Your task to perform on an android device: find snoozed emails in the gmail app Image 0: 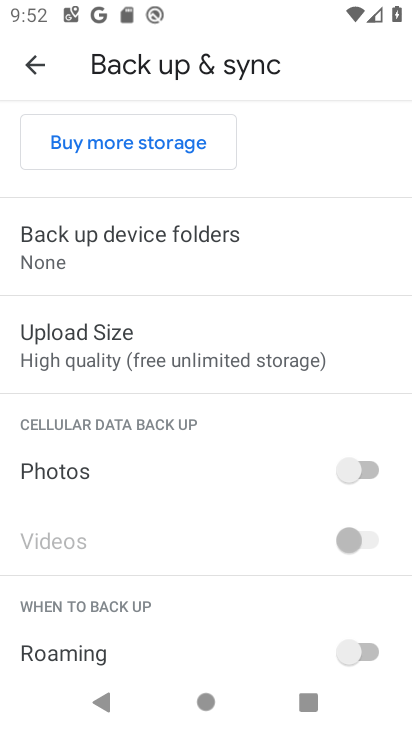
Step 0: press home button
Your task to perform on an android device: find snoozed emails in the gmail app Image 1: 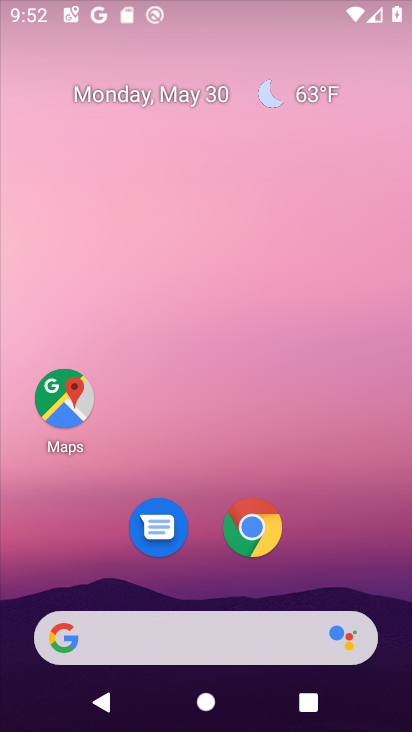
Step 1: drag from (215, 538) to (177, 254)
Your task to perform on an android device: find snoozed emails in the gmail app Image 2: 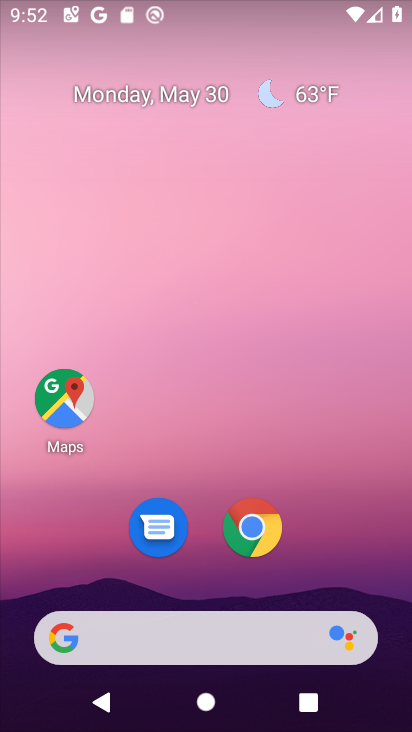
Step 2: drag from (98, 607) to (170, 213)
Your task to perform on an android device: find snoozed emails in the gmail app Image 3: 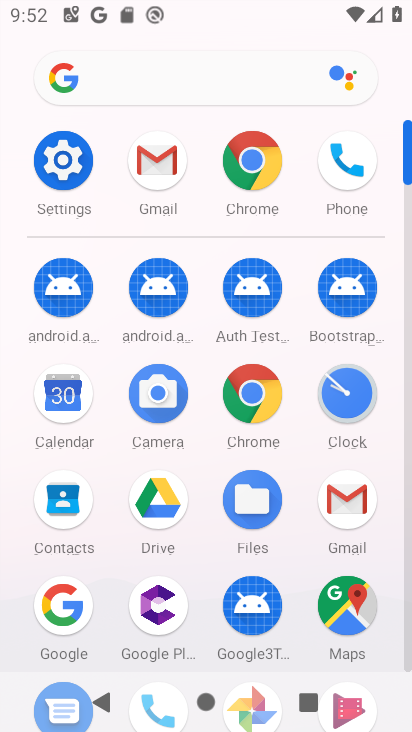
Step 3: click (340, 496)
Your task to perform on an android device: find snoozed emails in the gmail app Image 4: 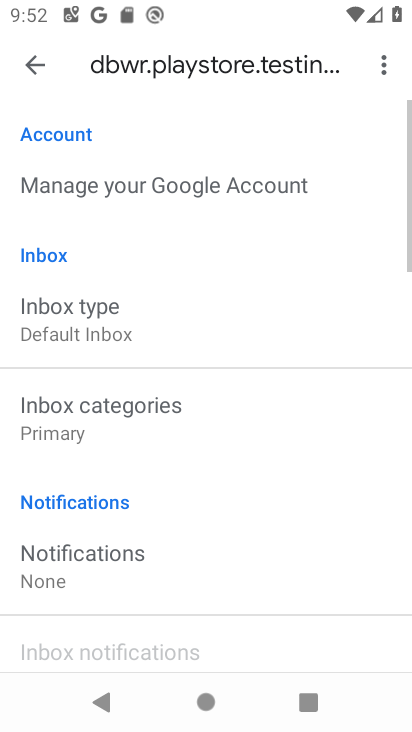
Step 4: click (52, 59)
Your task to perform on an android device: find snoozed emails in the gmail app Image 5: 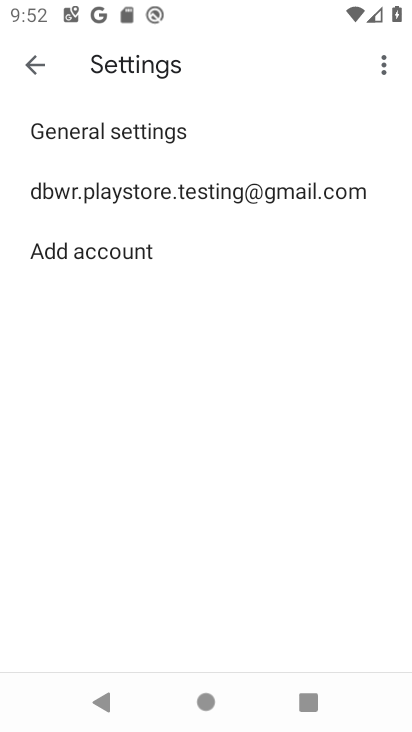
Step 5: click (45, 65)
Your task to perform on an android device: find snoozed emails in the gmail app Image 6: 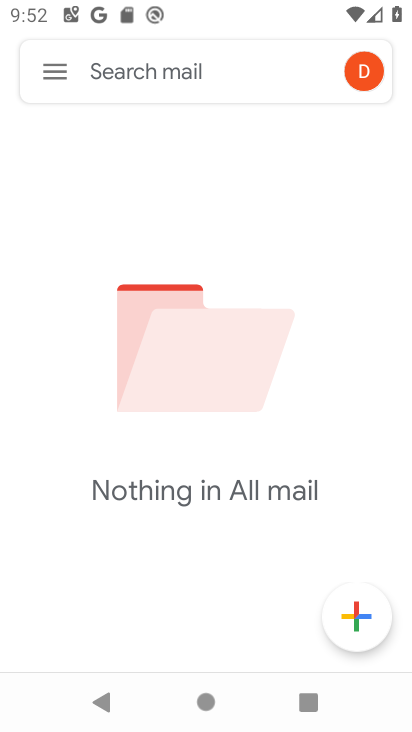
Step 6: click (45, 65)
Your task to perform on an android device: find snoozed emails in the gmail app Image 7: 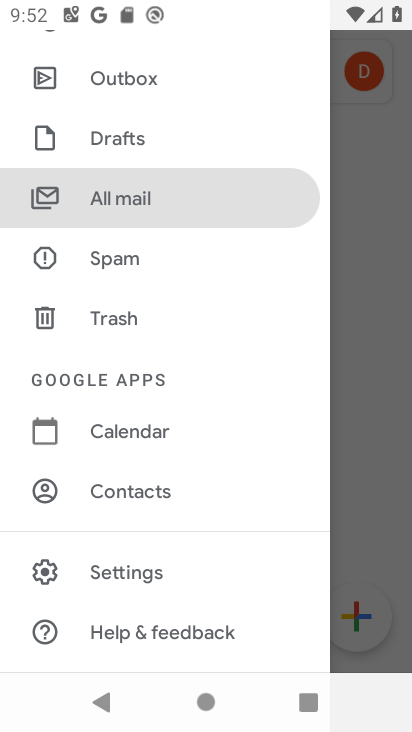
Step 7: drag from (165, 175) to (170, 431)
Your task to perform on an android device: find snoozed emails in the gmail app Image 8: 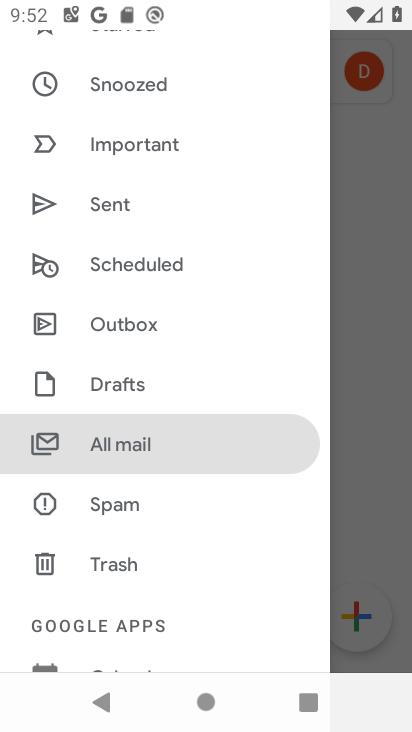
Step 8: click (174, 75)
Your task to perform on an android device: find snoozed emails in the gmail app Image 9: 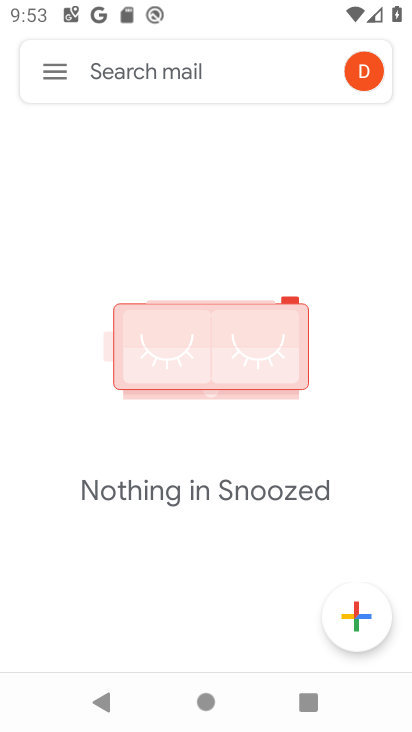
Step 9: task complete